Your task to perform on an android device: Go to Yahoo.com Image 0: 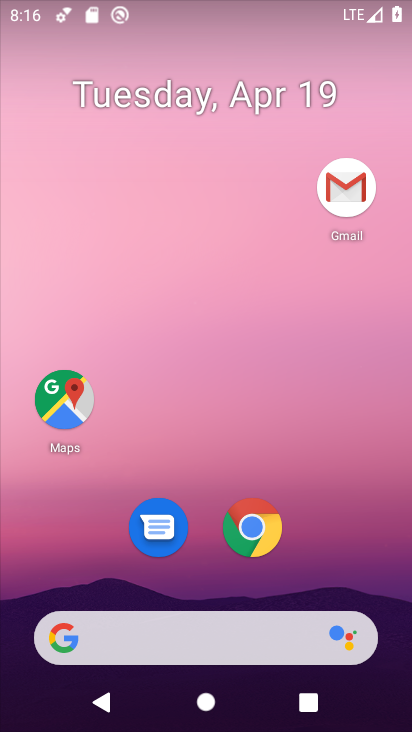
Step 0: click (259, 535)
Your task to perform on an android device: Go to Yahoo.com Image 1: 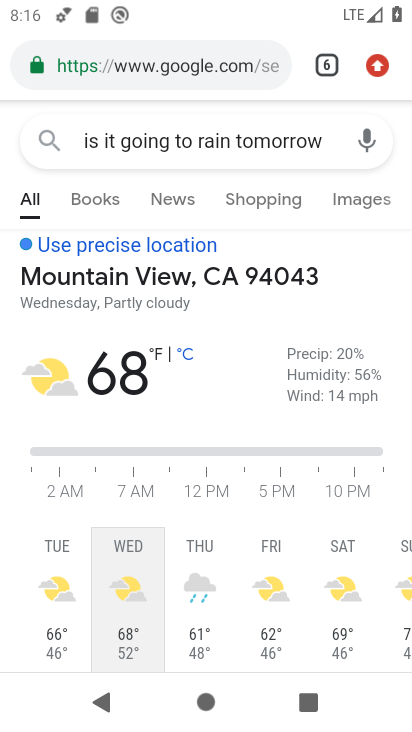
Step 1: click (225, 140)
Your task to perform on an android device: Go to Yahoo.com Image 2: 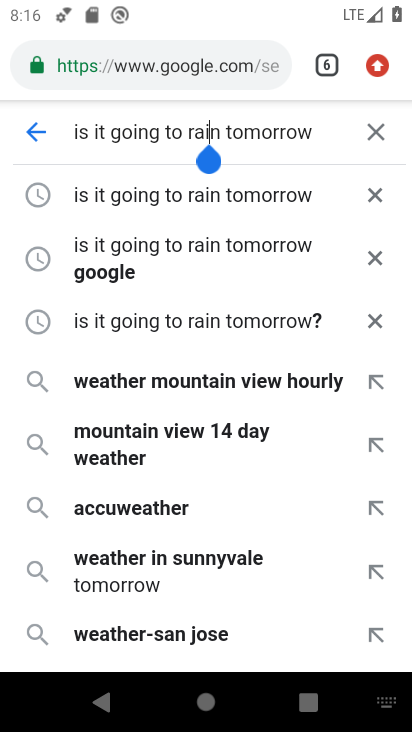
Step 2: click (372, 130)
Your task to perform on an android device: Go to Yahoo.com Image 3: 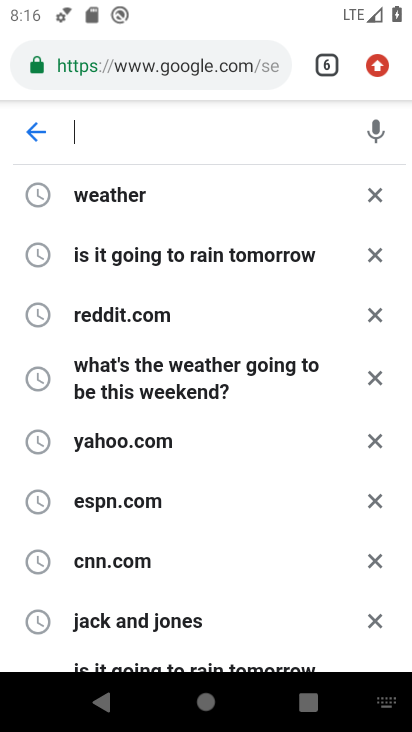
Step 3: type "yahoo.com"
Your task to perform on an android device: Go to Yahoo.com Image 4: 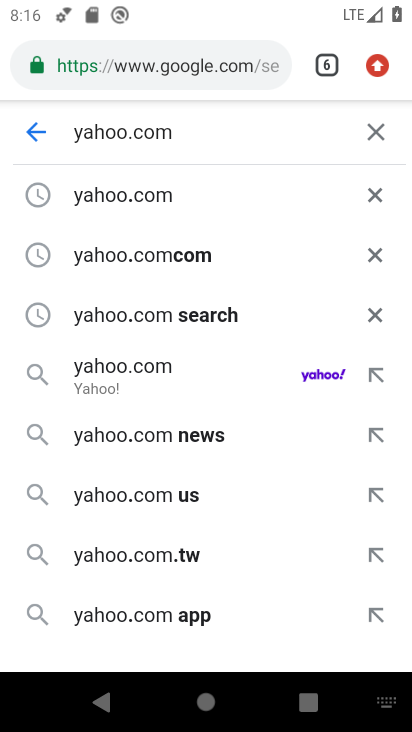
Step 4: click (123, 185)
Your task to perform on an android device: Go to Yahoo.com Image 5: 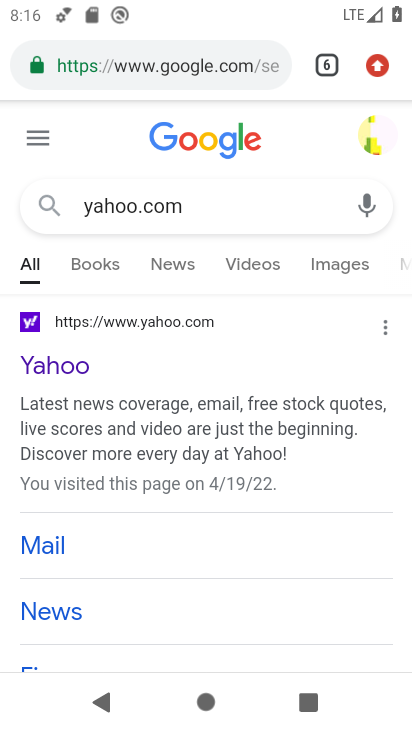
Step 5: task complete